Your task to perform on an android device: change the clock display to digital Image 0: 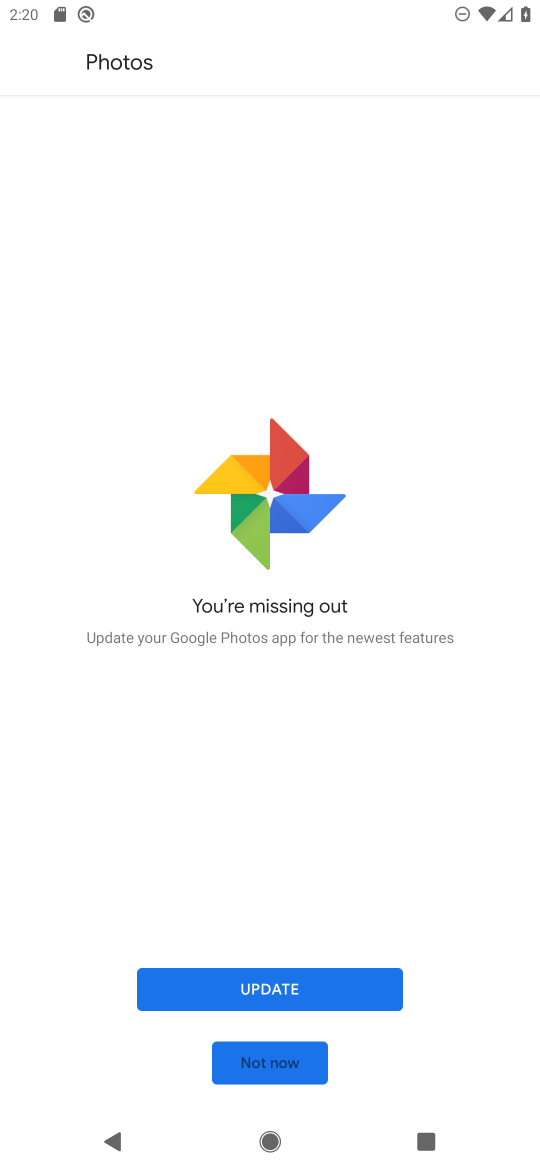
Step 0: press home button
Your task to perform on an android device: change the clock display to digital Image 1: 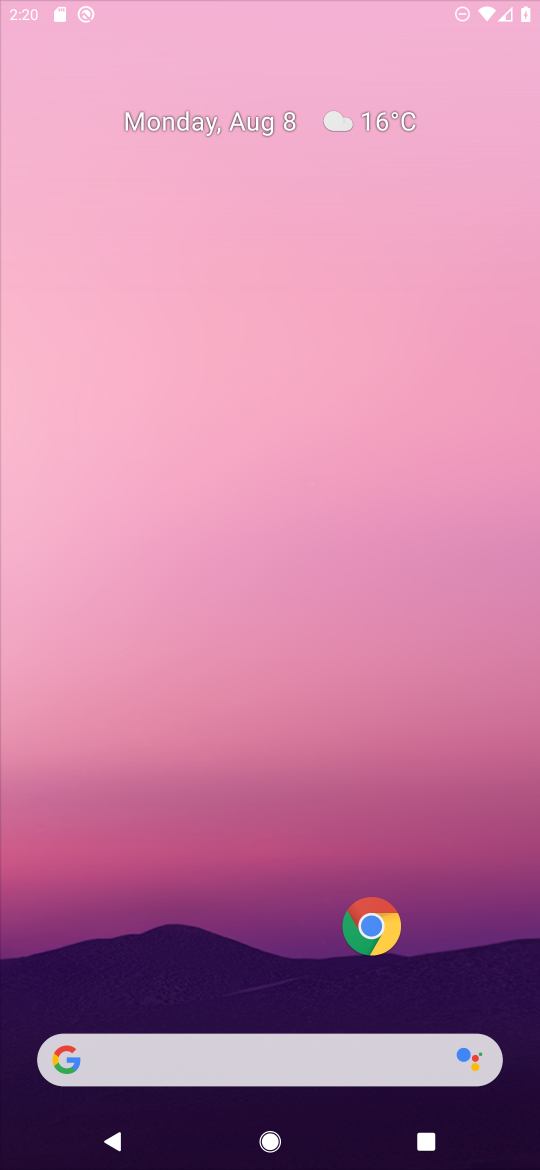
Step 1: drag from (231, 1123) to (268, 264)
Your task to perform on an android device: change the clock display to digital Image 2: 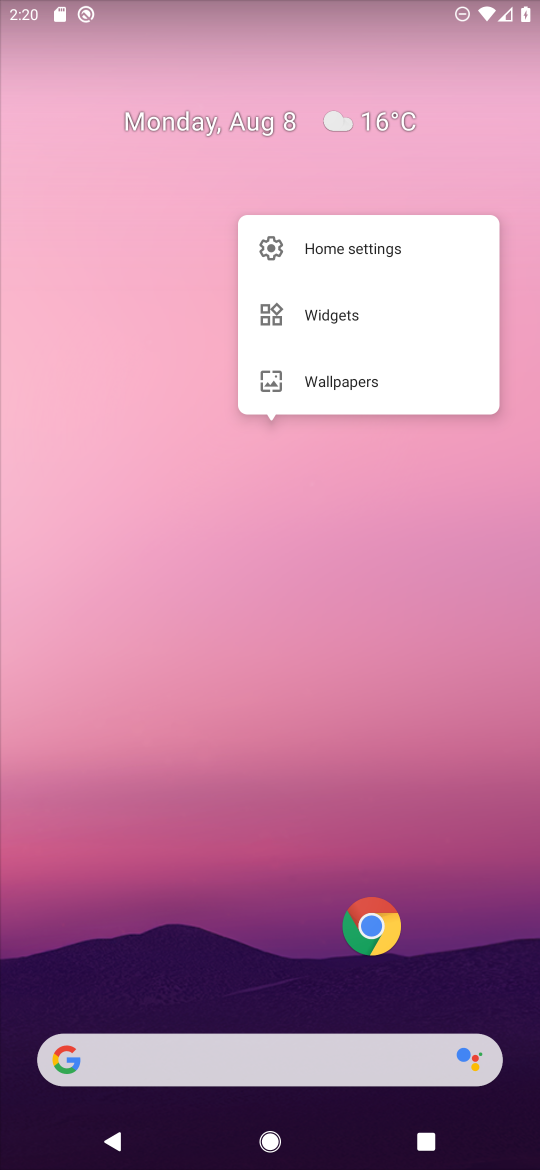
Step 2: click (201, 922)
Your task to perform on an android device: change the clock display to digital Image 3: 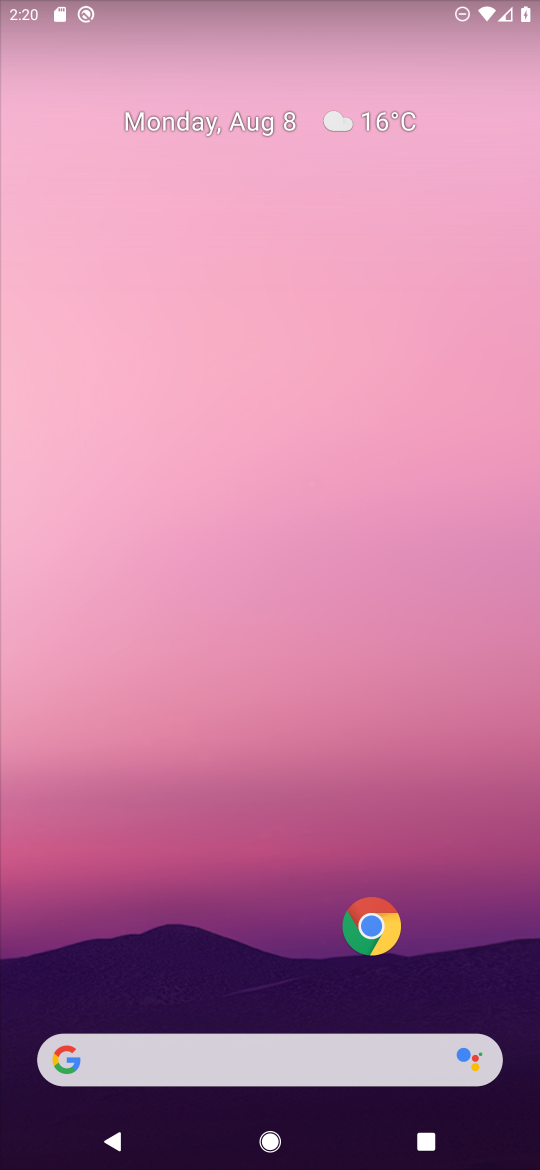
Step 3: drag from (217, 1005) to (248, 82)
Your task to perform on an android device: change the clock display to digital Image 4: 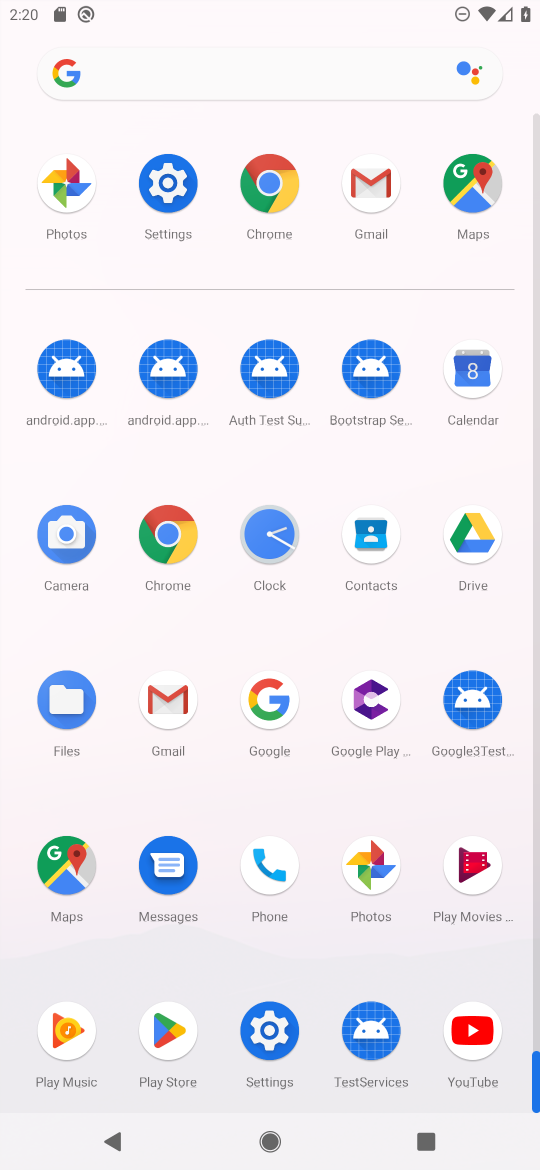
Step 4: click (265, 533)
Your task to perform on an android device: change the clock display to digital Image 5: 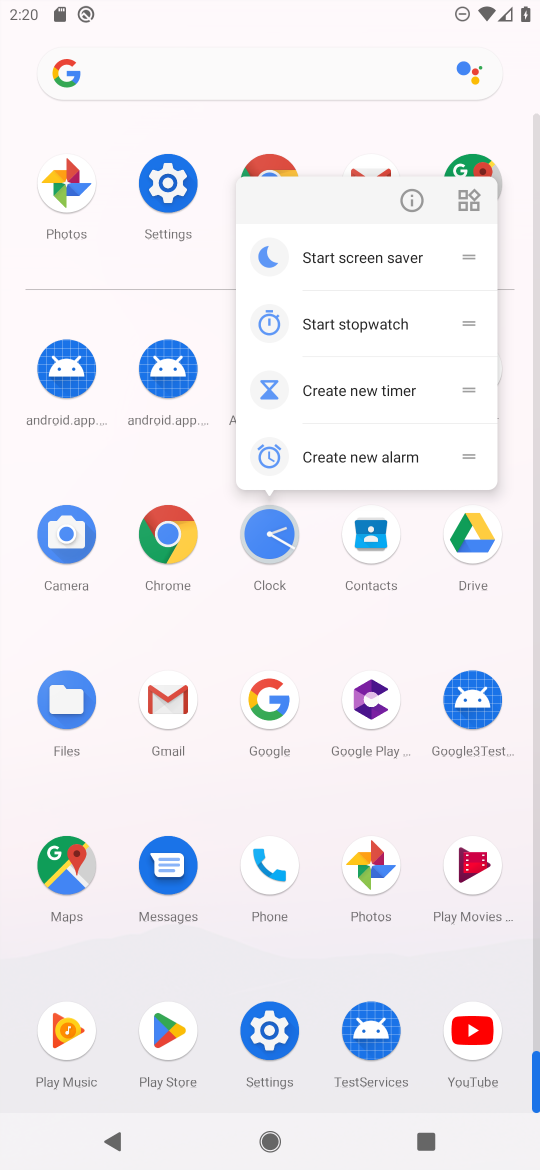
Step 5: click (274, 514)
Your task to perform on an android device: change the clock display to digital Image 6: 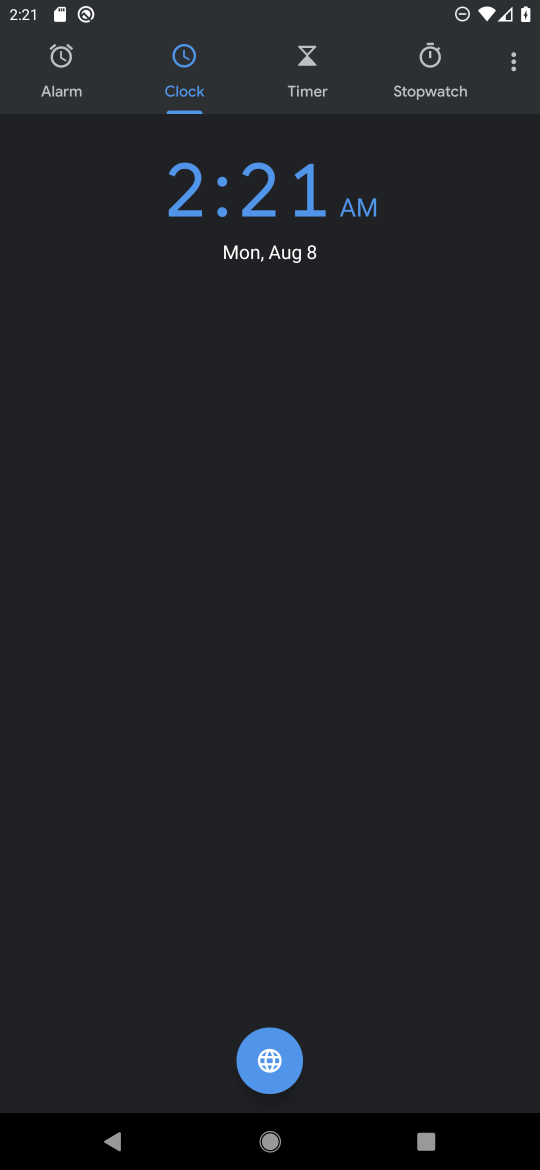
Step 6: click (501, 67)
Your task to perform on an android device: change the clock display to digital Image 7: 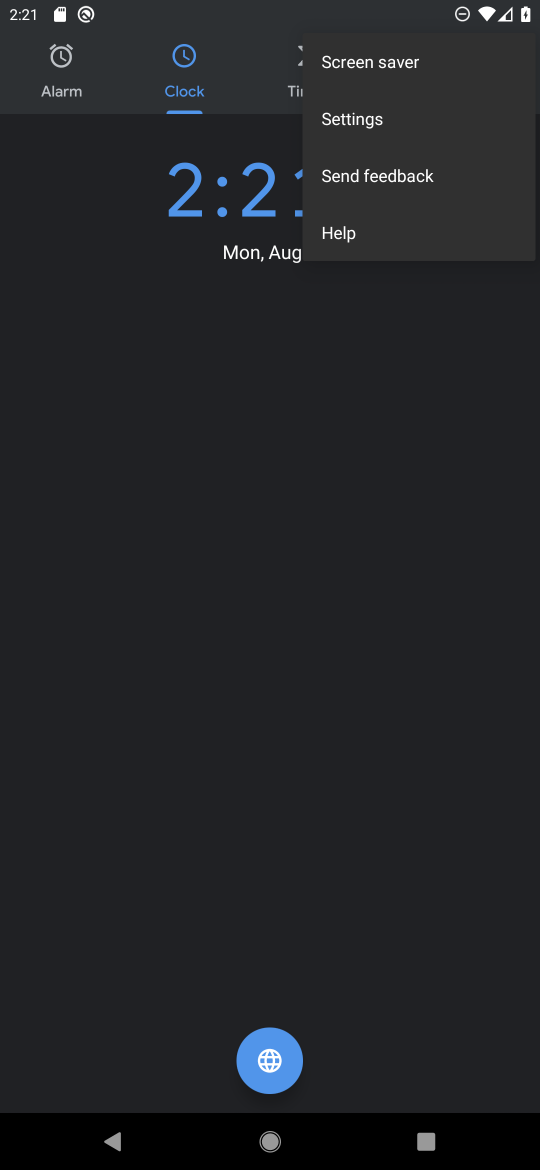
Step 7: click (417, 129)
Your task to perform on an android device: change the clock display to digital Image 8: 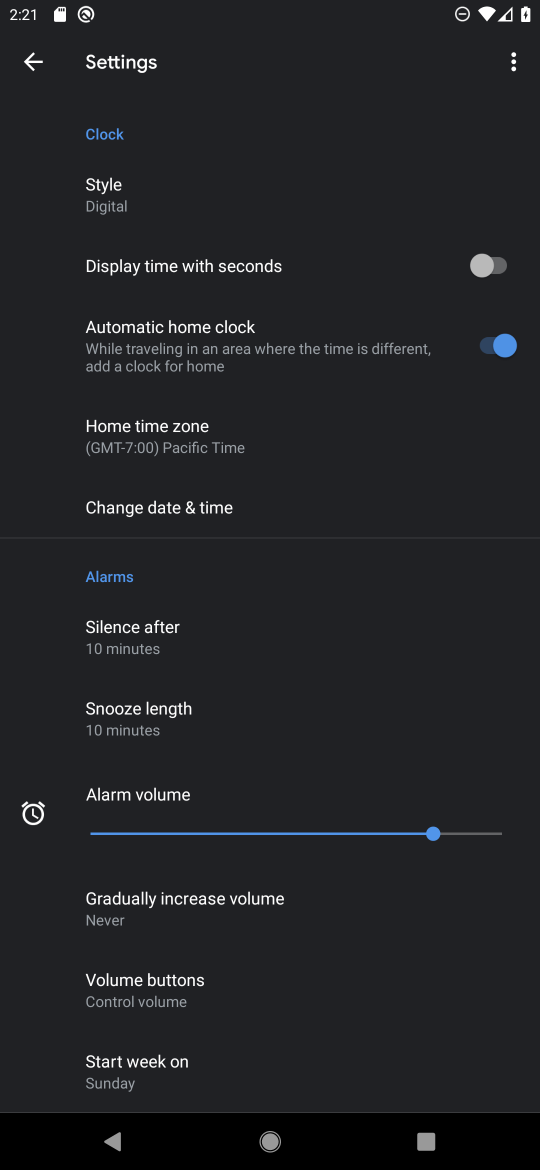
Step 8: click (137, 189)
Your task to perform on an android device: change the clock display to digital Image 9: 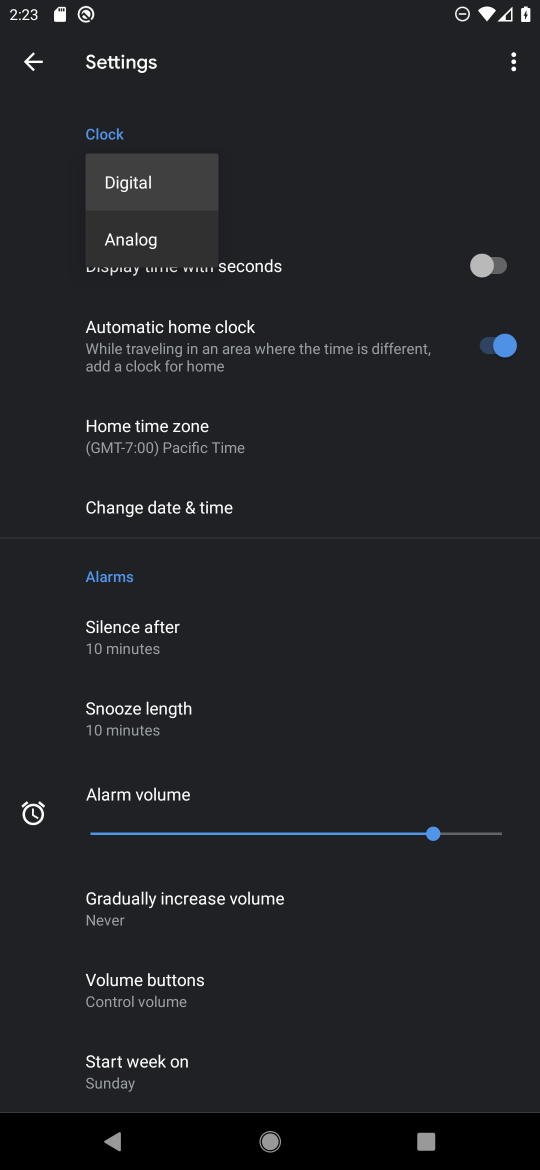
Step 9: task complete